Your task to perform on an android device: turn on bluetooth scan Image 0: 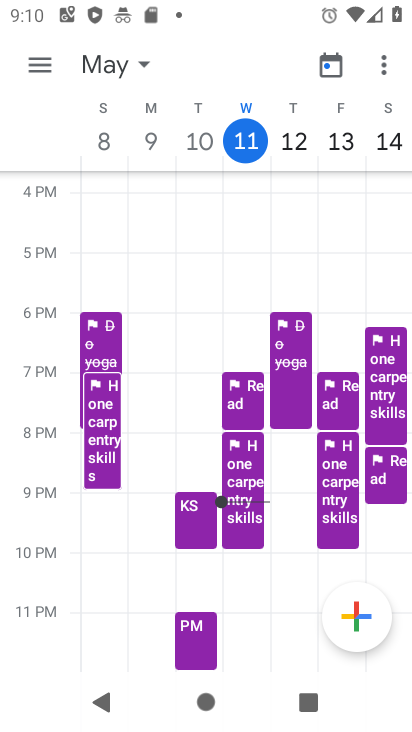
Step 0: press home button
Your task to perform on an android device: turn on bluetooth scan Image 1: 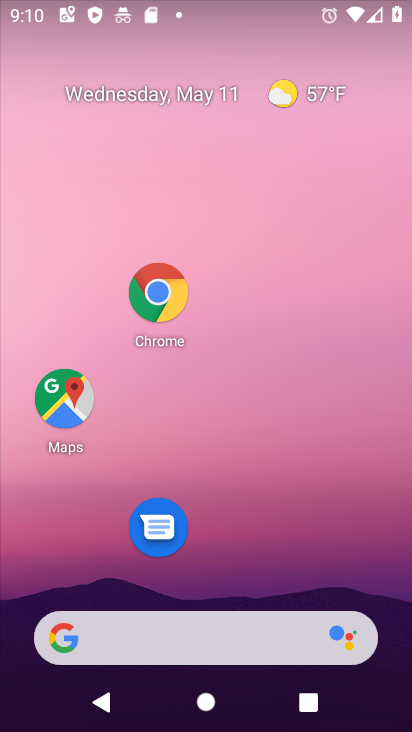
Step 1: drag from (343, 114) to (320, 33)
Your task to perform on an android device: turn on bluetooth scan Image 2: 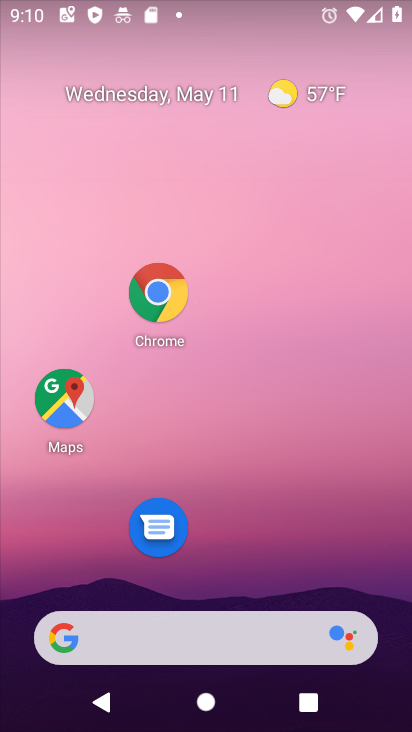
Step 2: click (327, 539)
Your task to perform on an android device: turn on bluetooth scan Image 3: 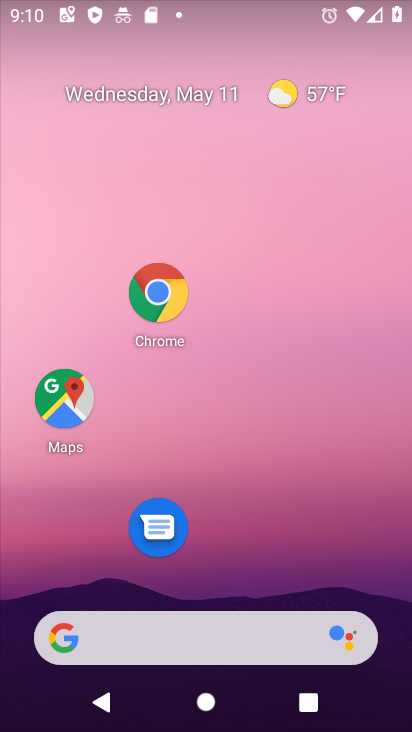
Step 3: drag from (327, 539) to (362, 0)
Your task to perform on an android device: turn on bluetooth scan Image 4: 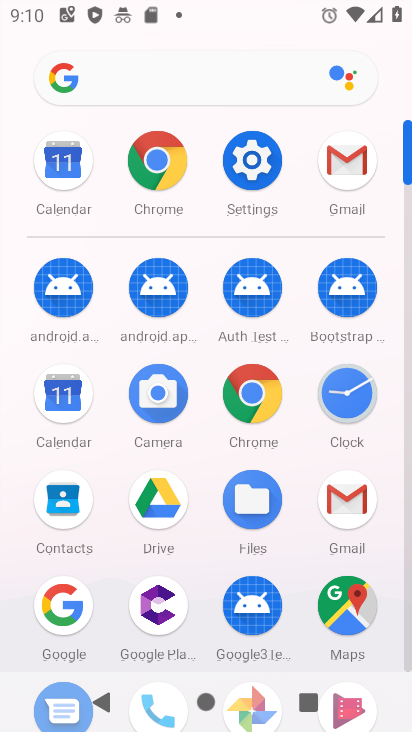
Step 4: click (252, 182)
Your task to perform on an android device: turn on bluetooth scan Image 5: 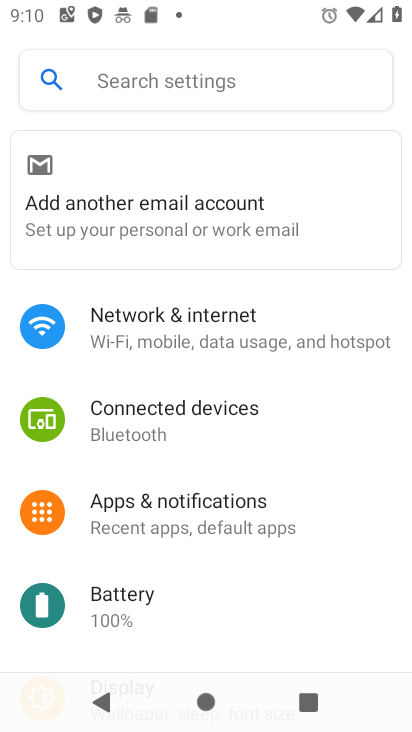
Step 5: drag from (271, 484) to (252, 79)
Your task to perform on an android device: turn on bluetooth scan Image 6: 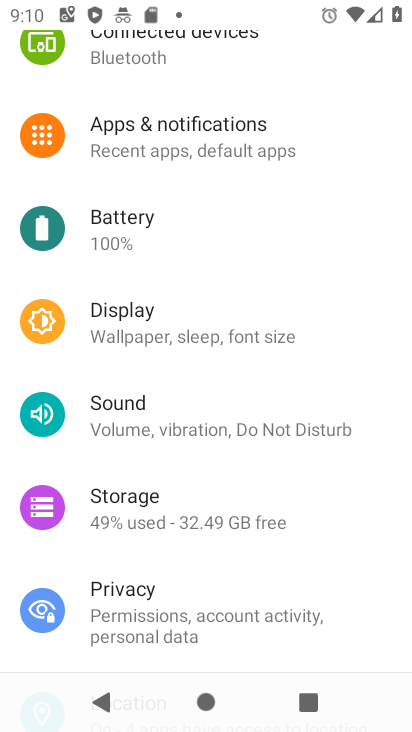
Step 6: drag from (228, 439) to (221, 134)
Your task to perform on an android device: turn on bluetooth scan Image 7: 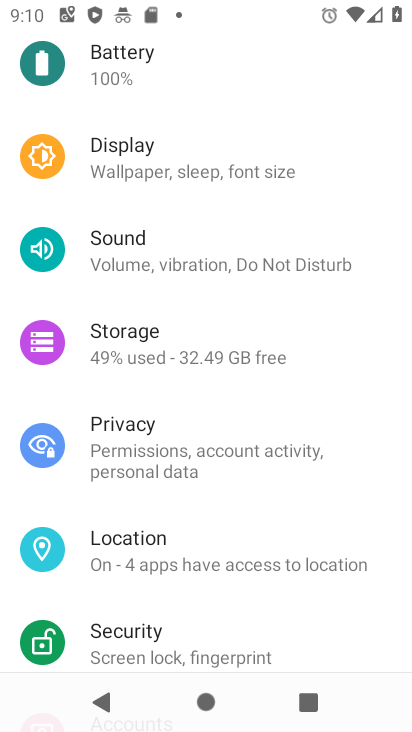
Step 7: click (110, 543)
Your task to perform on an android device: turn on bluetooth scan Image 8: 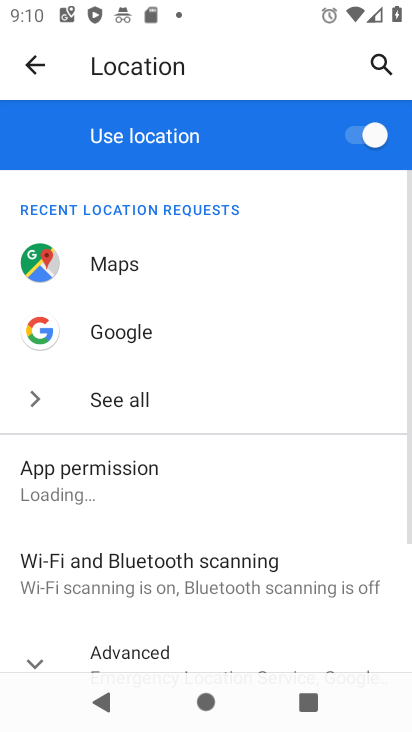
Step 8: click (103, 571)
Your task to perform on an android device: turn on bluetooth scan Image 9: 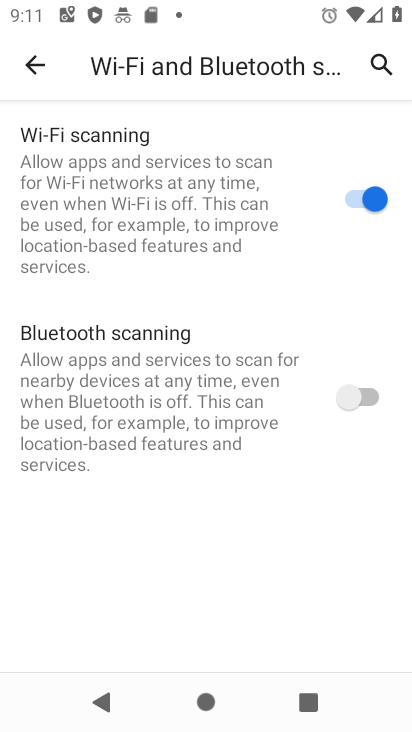
Step 9: click (371, 365)
Your task to perform on an android device: turn on bluetooth scan Image 10: 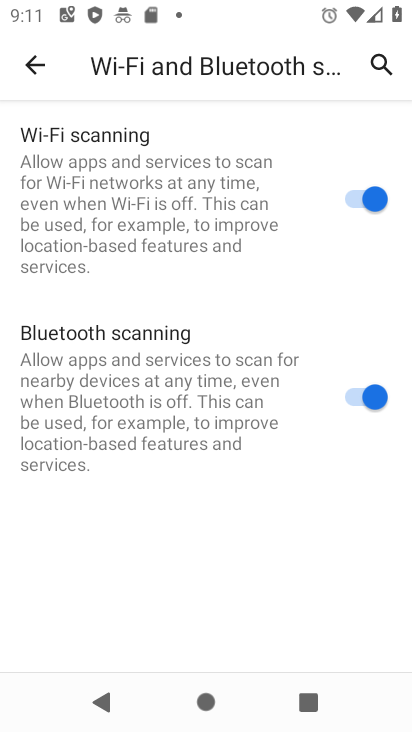
Step 10: task complete